Your task to perform on an android device: Go to eBay Image 0: 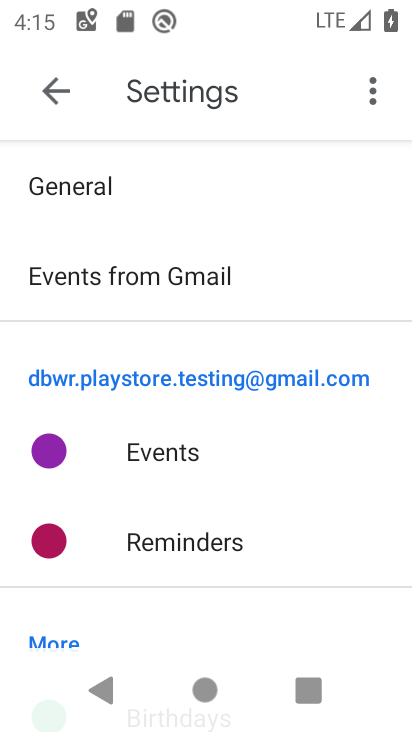
Step 0: press home button
Your task to perform on an android device: Go to eBay Image 1: 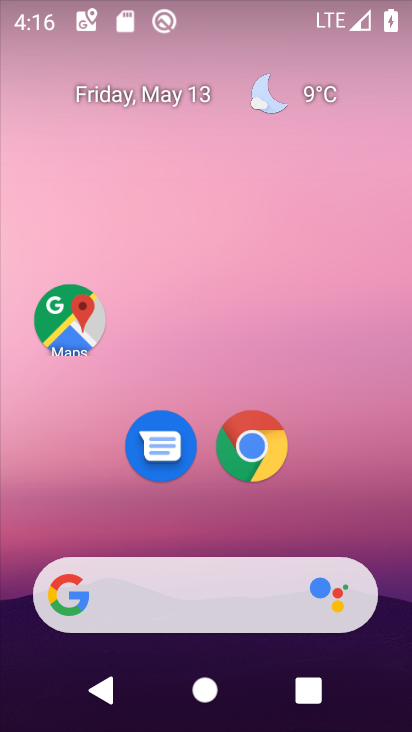
Step 1: click (242, 455)
Your task to perform on an android device: Go to eBay Image 2: 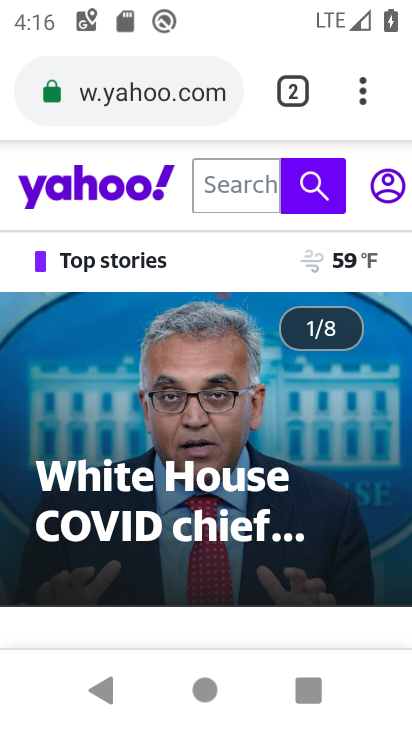
Step 2: click (142, 90)
Your task to perform on an android device: Go to eBay Image 3: 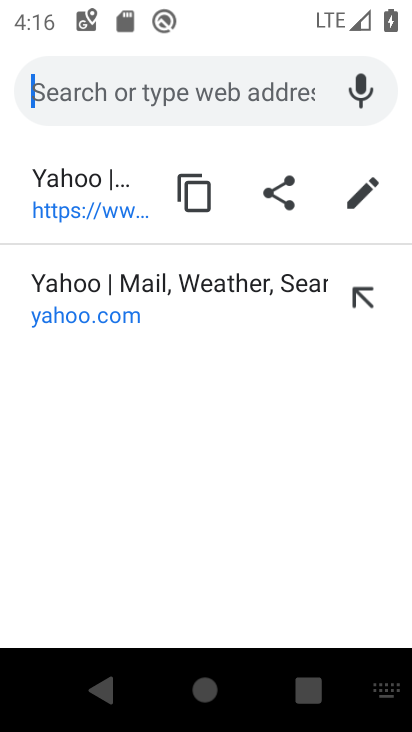
Step 3: type "ebay"
Your task to perform on an android device: Go to eBay Image 4: 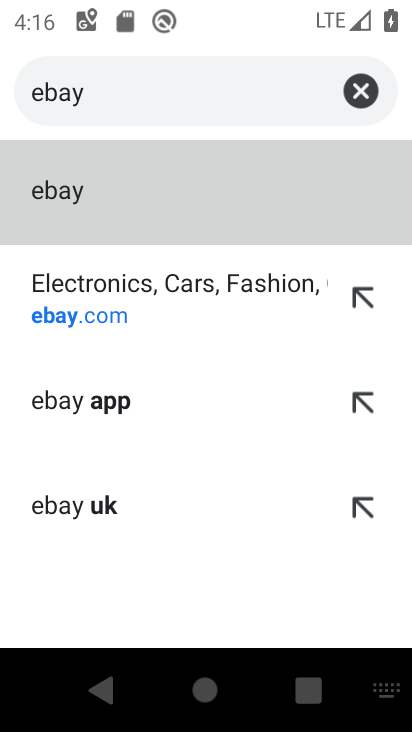
Step 4: click (52, 172)
Your task to perform on an android device: Go to eBay Image 5: 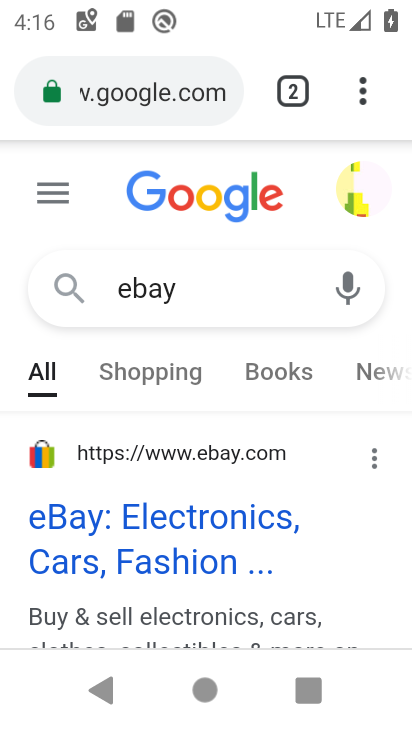
Step 5: click (121, 527)
Your task to perform on an android device: Go to eBay Image 6: 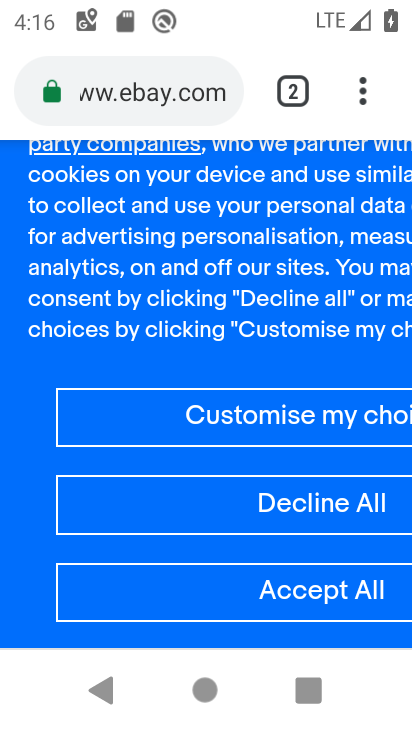
Step 6: task complete